Your task to perform on an android device: toggle notification dots Image 0: 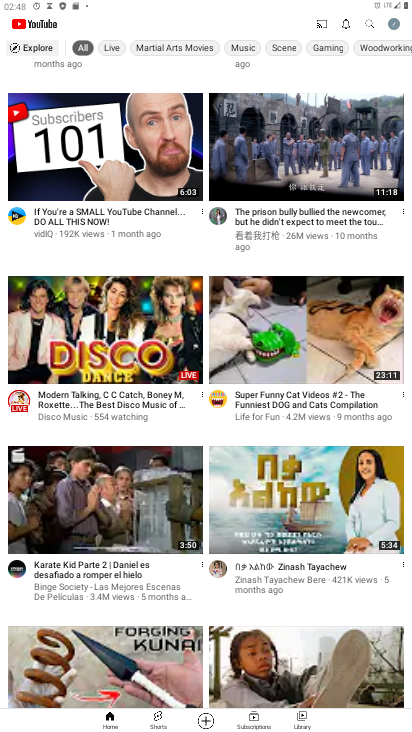
Step 0: press home button
Your task to perform on an android device: toggle notification dots Image 1: 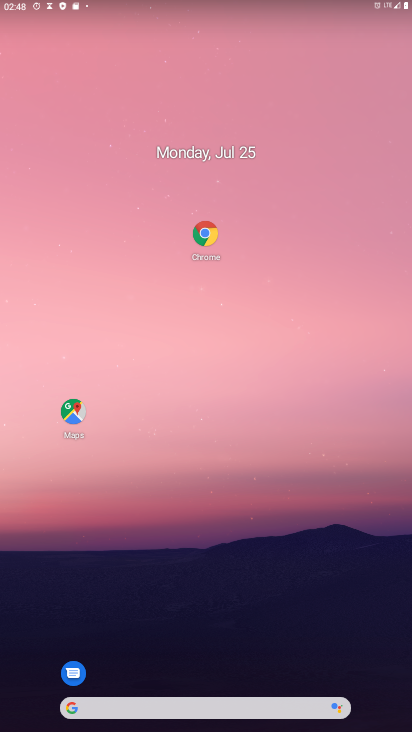
Step 1: drag from (231, 597) to (238, 11)
Your task to perform on an android device: toggle notification dots Image 2: 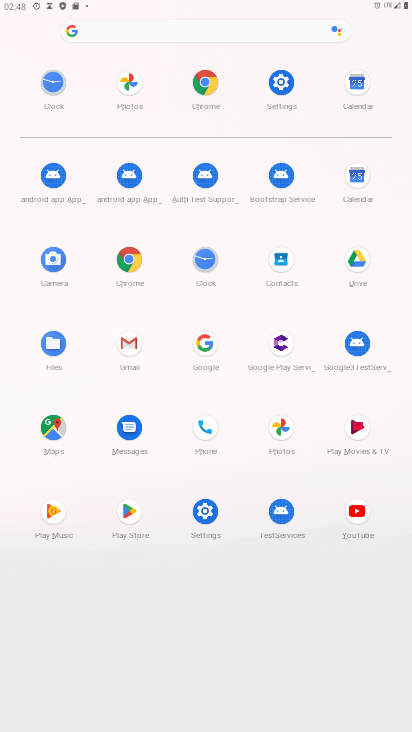
Step 2: click (275, 84)
Your task to perform on an android device: toggle notification dots Image 3: 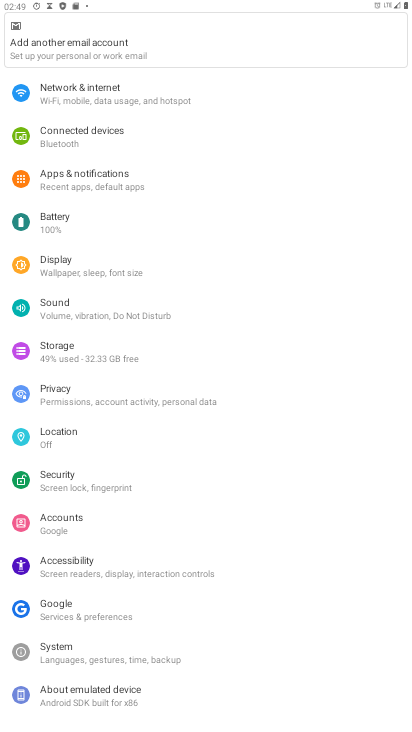
Step 3: click (97, 175)
Your task to perform on an android device: toggle notification dots Image 4: 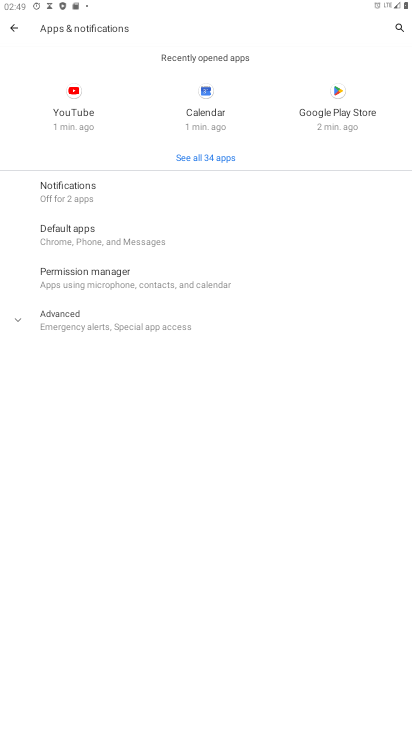
Step 4: click (91, 202)
Your task to perform on an android device: toggle notification dots Image 5: 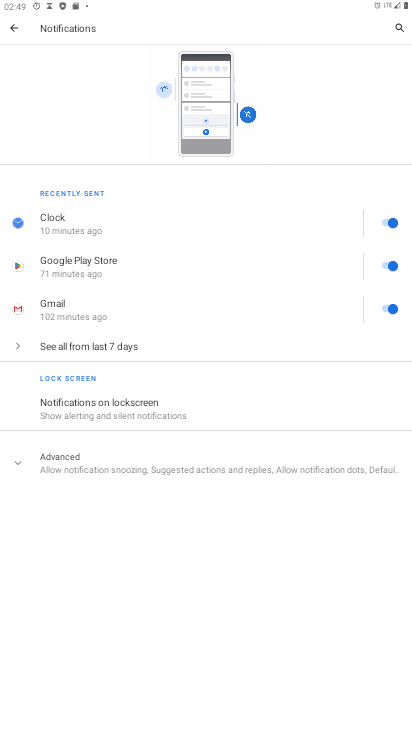
Step 5: click (113, 461)
Your task to perform on an android device: toggle notification dots Image 6: 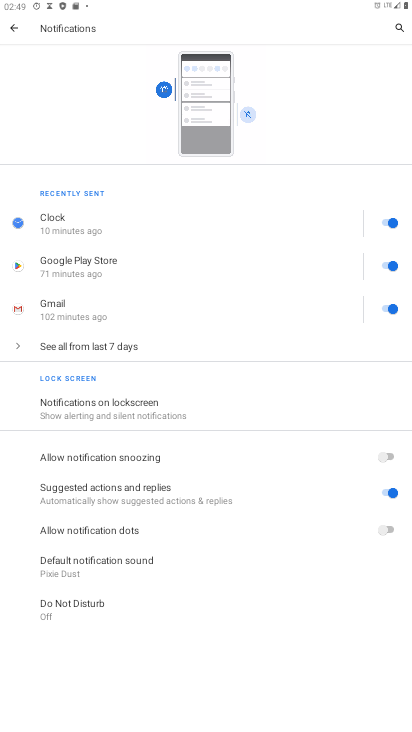
Step 6: click (129, 534)
Your task to perform on an android device: toggle notification dots Image 7: 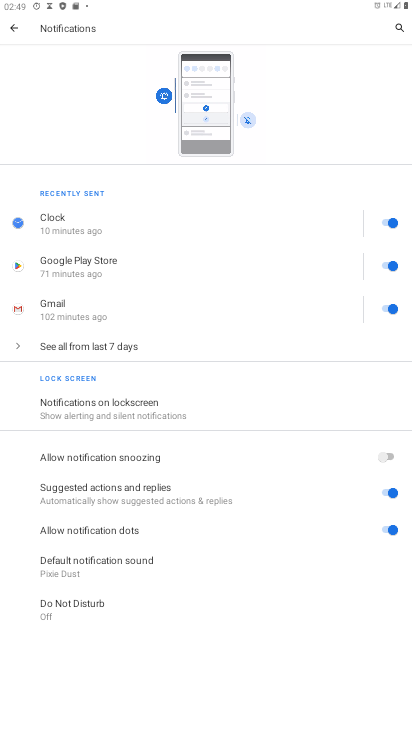
Step 7: task complete